Your task to perform on an android device: turn on priority inbox in the gmail app Image 0: 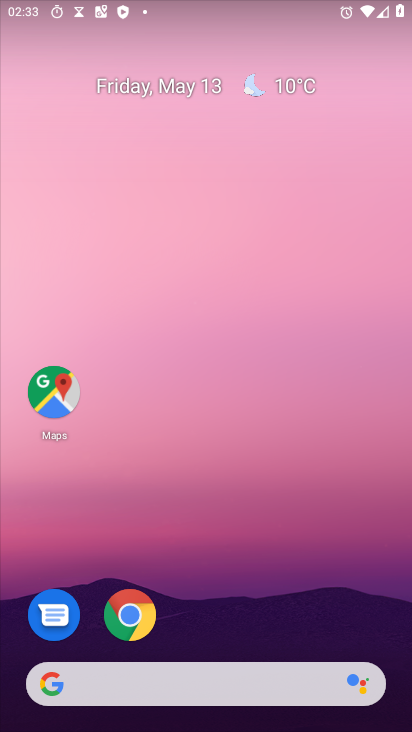
Step 0: drag from (190, 626) to (97, 74)
Your task to perform on an android device: turn on priority inbox in the gmail app Image 1: 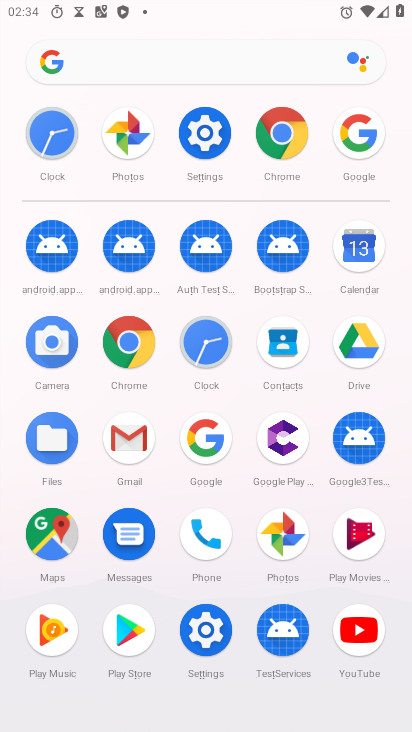
Step 1: click (138, 452)
Your task to perform on an android device: turn on priority inbox in the gmail app Image 2: 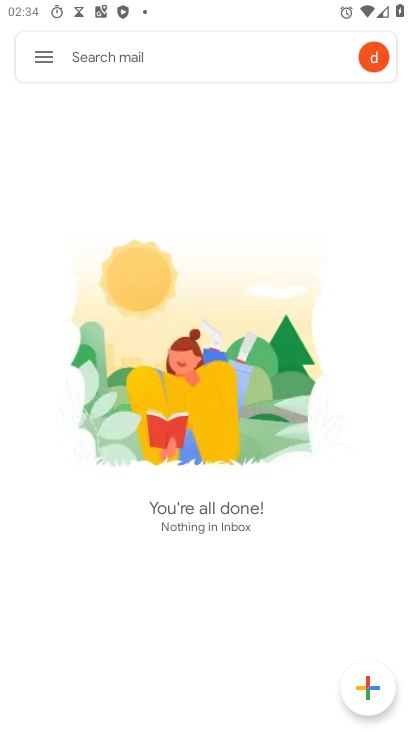
Step 2: click (47, 56)
Your task to perform on an android device: turn on priority inbox in the gmail app Image 3: 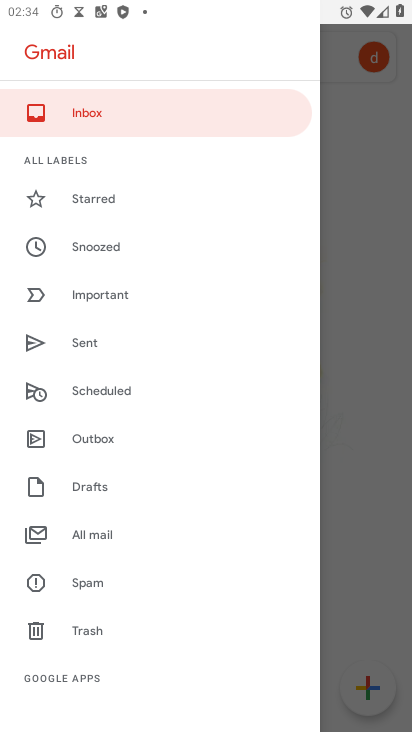
Step 3: drag from (143, 685) to (152, 462)
Your task to perform on an android device: turn on priority inbox in the gmail app Image 4: 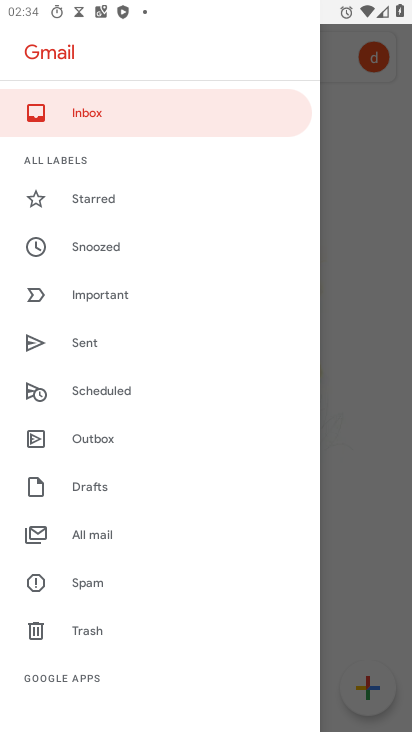
Step 4: drag from (161, 703) to (204, 251)
Your task to perform on an android device: turn on priority inbox in the gmail app Image 5: 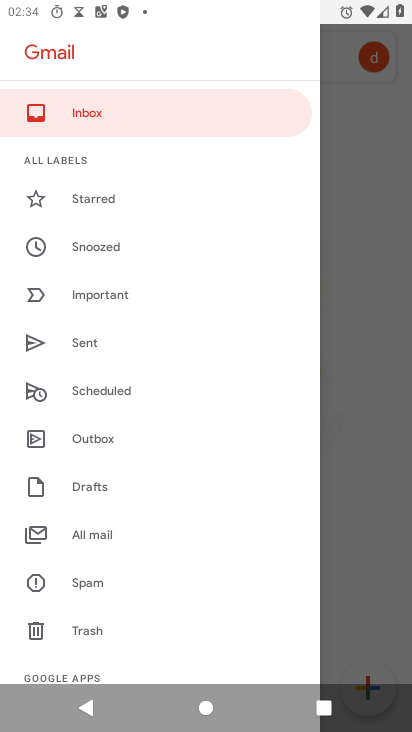
Step 5: drag from (272, 620) to (272, 120)
Your task to perform on an android device: turn on priority inbox in the gmail app Image 6: 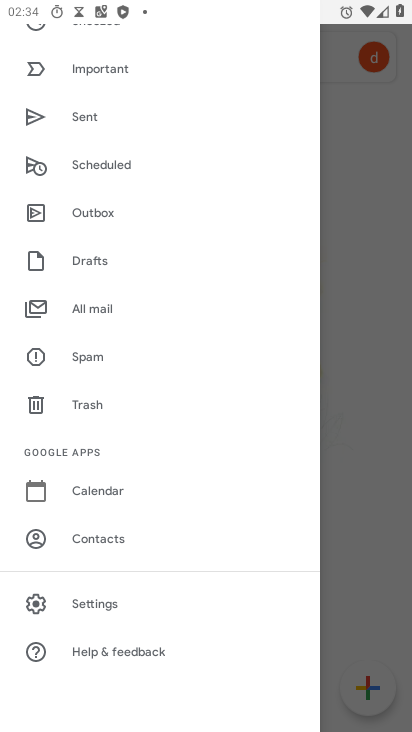
Step 6: click (67, 599)
Your task to perform on an android device: turn on priority inbox in the gmail app Image 7: 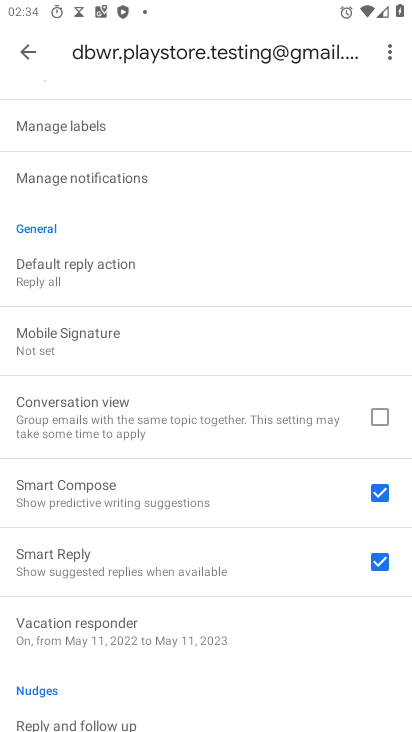
Step 7: drag from (170, 162) to (162, 553)
Your task to perform on an android device: turn on priority inbox in the gmail app Image 8: 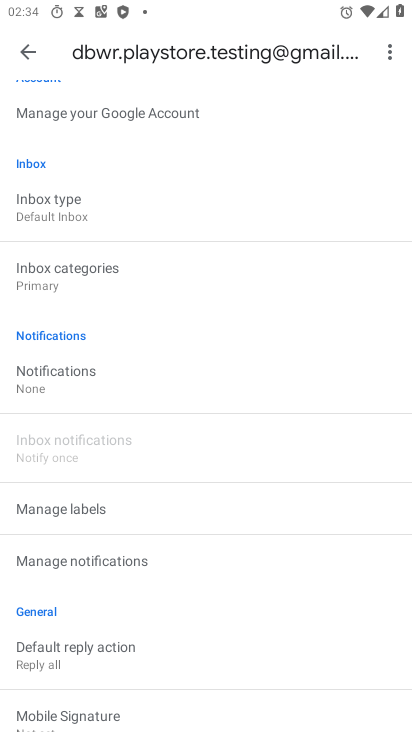
Step 8: click (76, 220)
Your task to perform on an android device: turn on priority inbox in the gmail app Image 9: 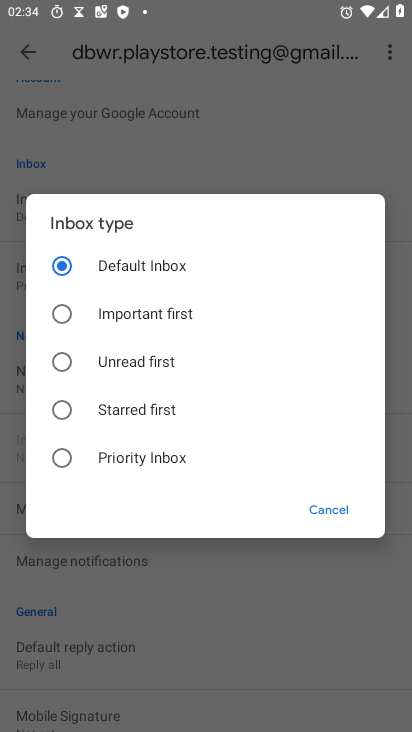
Step 9: click (65, 459)
Your task to perform on an android device: turn on priority inbox in the gmail app Image 10: 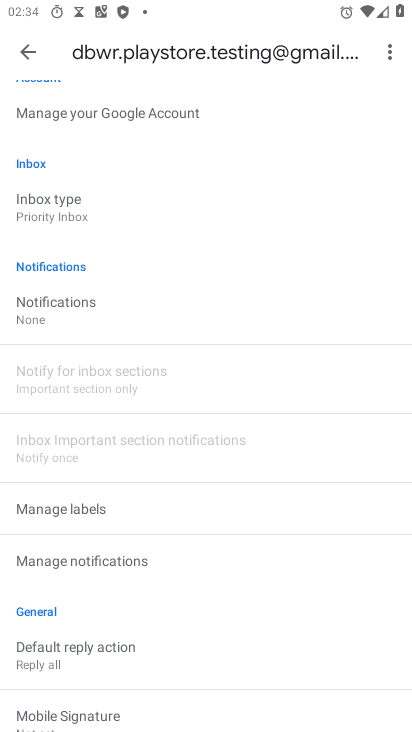
Step 10: task complete